Your task to perform on an android device: all mails in gmail Image 0: 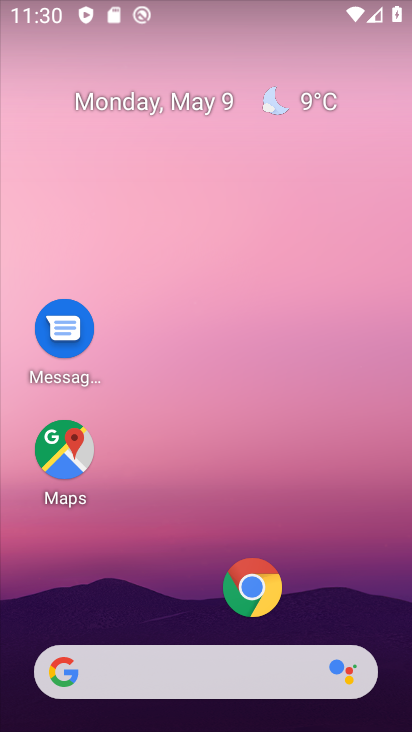
Step 0: drag from (142, 578) to (154, 251)
Your task to perform on an android device: all mails in gmail Image 1: 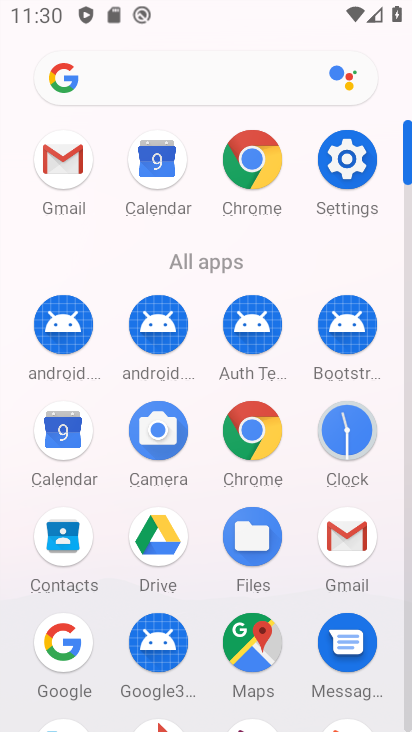
Step 1: click (332, 430)
Your task to perform on an android device: all mails in gmail Image 2: 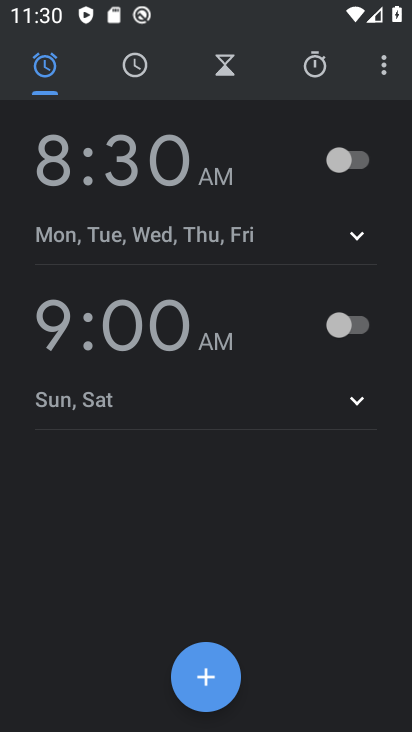
Step 2: click (298, 88)
Your task to perform on an android device: all mails in gmail Image 3: 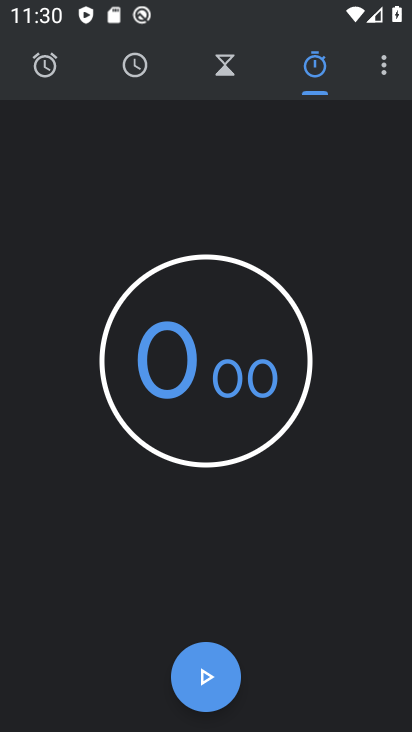
Step 3: click (218, 355)
Your task to perform on an android device: all mails in gmail Image 4: 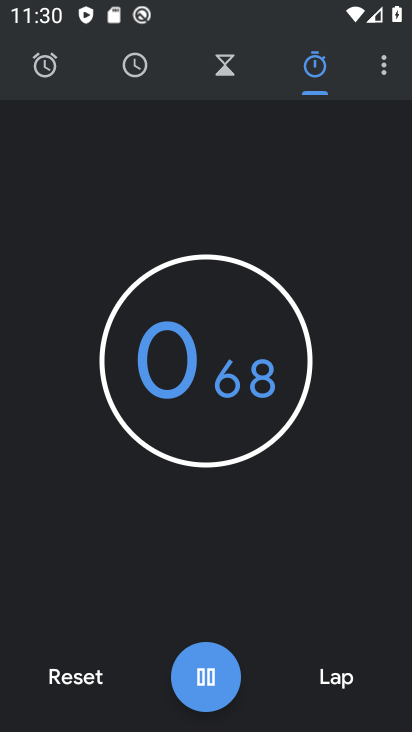
Step 4: task complete